Your task to perform on an android device: turn off translation in the chrome app Image 0: 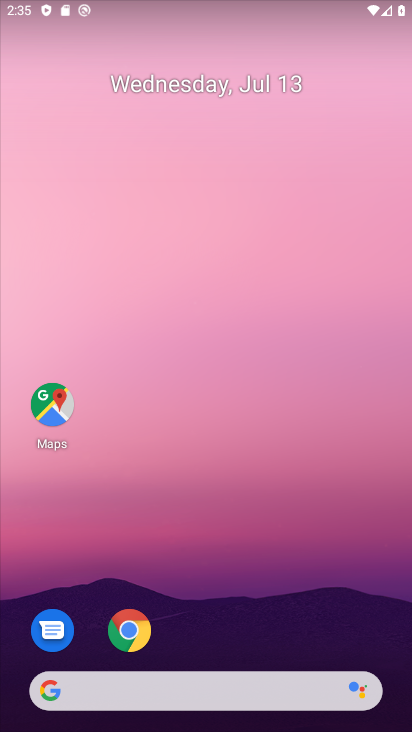
Step 0: click (128, 629)
Your task to perform on an android device: turn off translation in the chrome app Image 1: 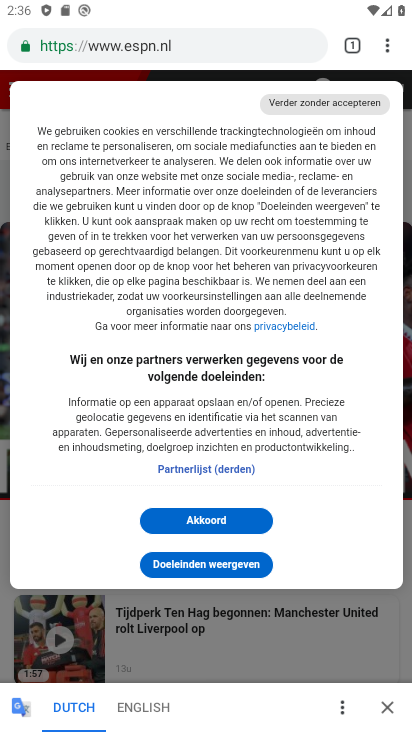
Step 1: click (383, 47)
Your task to perform on an android device: turn off translation in the chrome app Image 2: 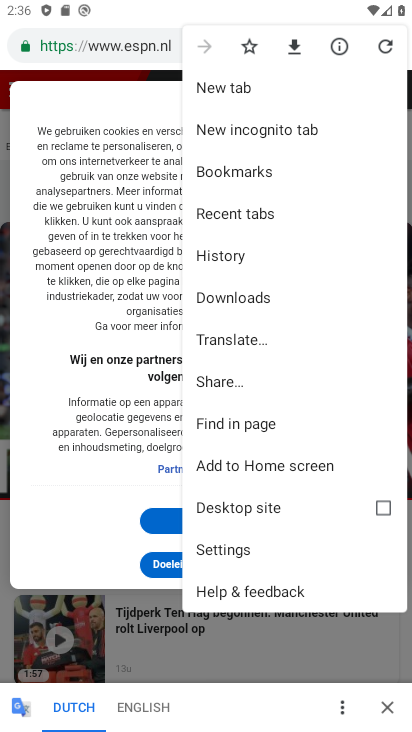
Step 2: click (259, 543)
Your task to perform on an android device: turn off translation in the chrome app Image 3: 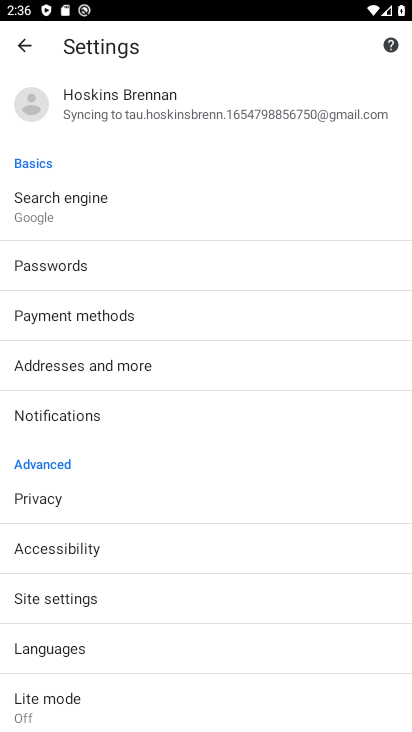
Step 3: click (167, 663)
Your task to perform on an android device: turn off translation in the chrome app Image 4: 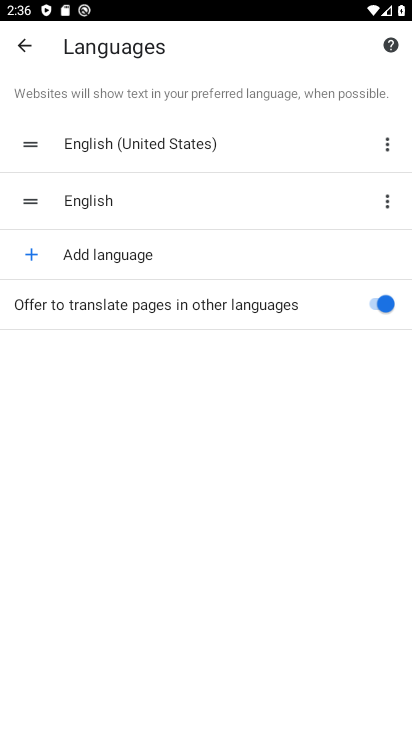
Step 4: click (368, 305)
Your task to perform on an android device: turn off translation in the chrome app Image 5: 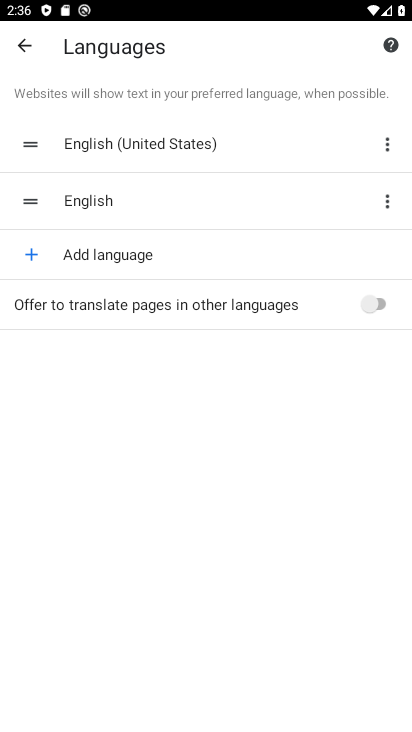
Step 5: task complete